Your task to perform on an android device: Check the weather Image 0: 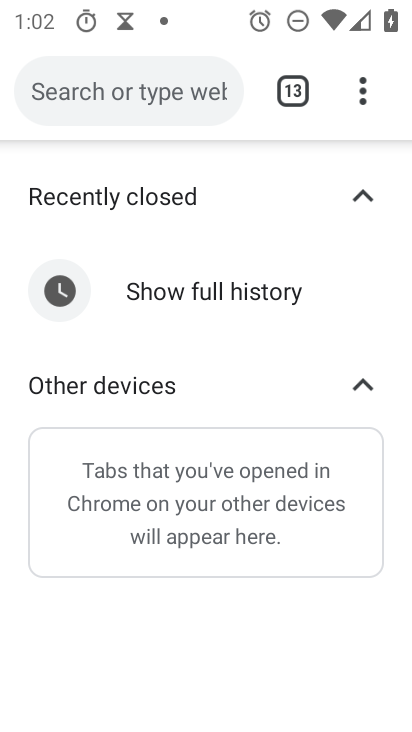
Step 0: press home button
Your task to perform on an android device: Check the weather Image 1: 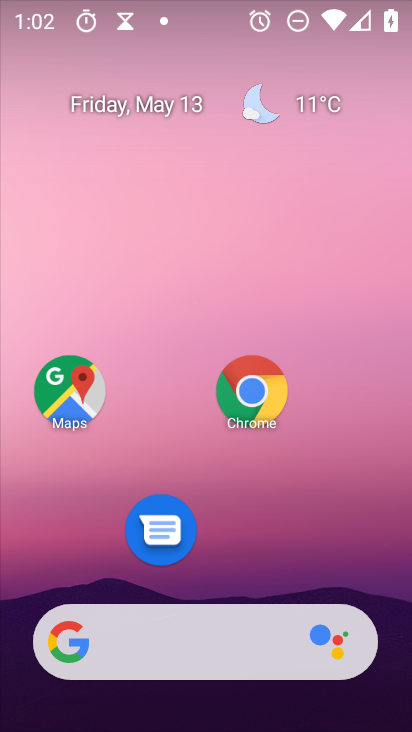
Step 1: click (323, 100)
Your task to perform on an android device: Check the weather Image 2: 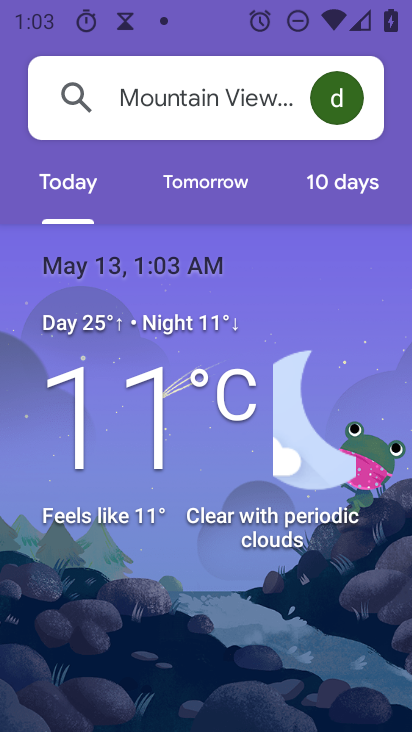
Step 2: task complete